Your task to perform on an android device: turn on priority inbox in the gmail app Image 0: 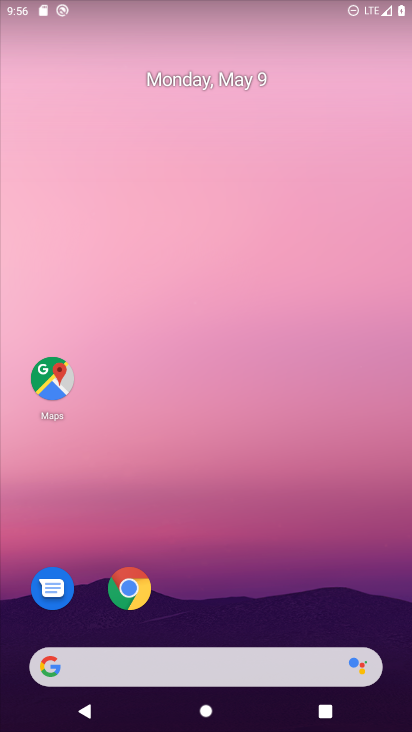
Step 0: drag from (369, 609) to (305, 186)
Your task to perform on an android device: turn on priority inbox in the gmail app Image 1: 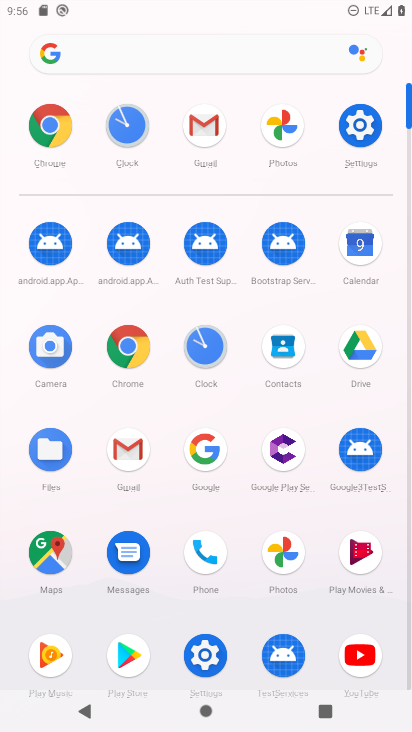
Step 1: click (225, 157)
Your task to perform on an android device: turn on priority inbox in the gmail app Image 2: 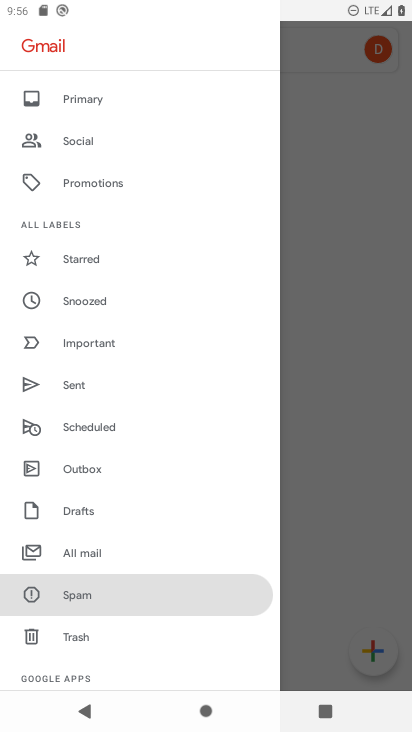
Step 2: drag from (153, 601) to (151, 178)
Your task to perform on an android device: turn on priority inbox in the gmail app Image 3: 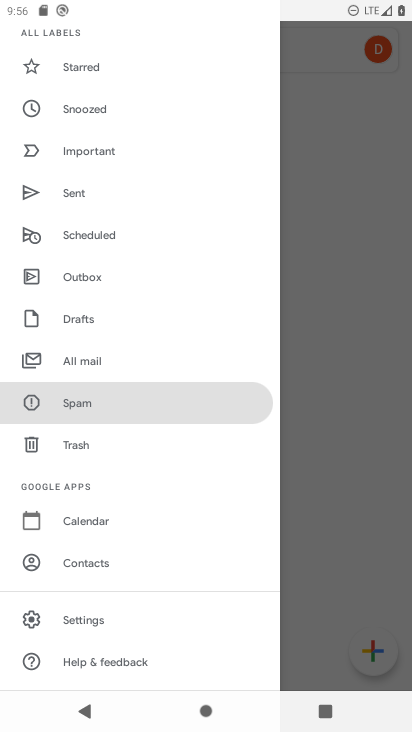
Step 3: click (153, 629)
Your task to perform on an android device: turn on priority inbox in the gmail app Image 4: 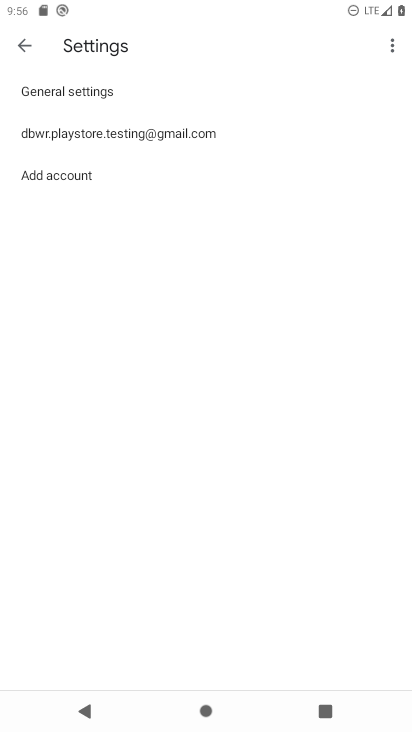
Step 4: click (215, 145)
Your task to perform on an android device: turn on priority inbox in the gmail app Image 5: 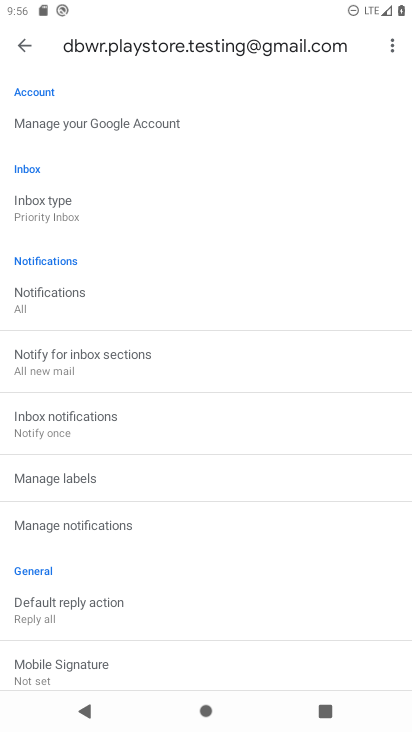
Step 5: click (178, 221)
Your task to perform on an android device: turn on priority inbox in the gmail app Image 6: 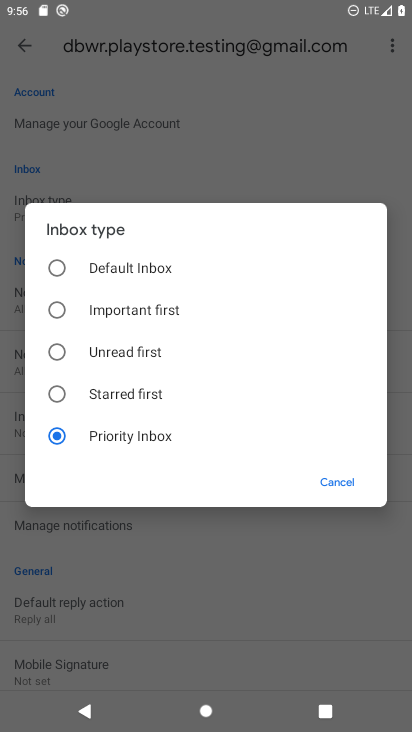
Step 6: task complete